Your task to perform on an android device: turn on translation in the chrome app Image 0: 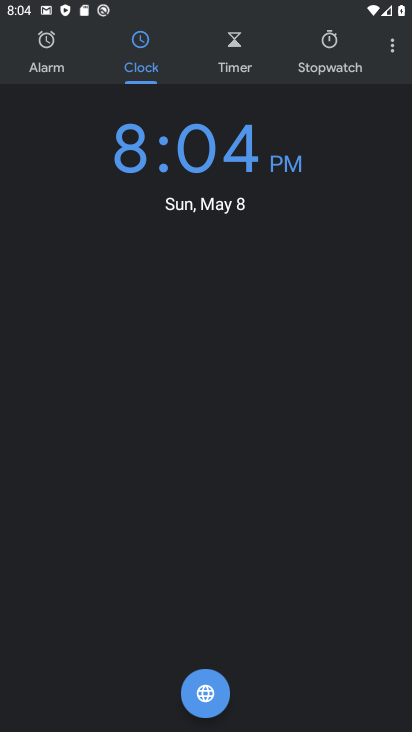
Step 0: press home button
Your task to perform on an android device: turn on translation in the chrome app Image 1: 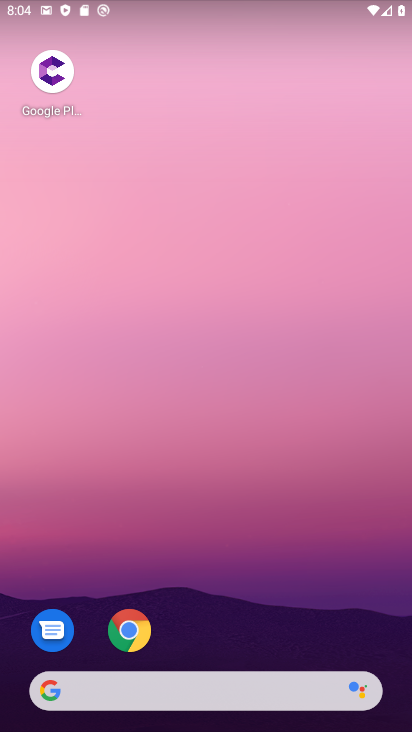
Step 1: drag from (234, 630) to (235, 115)
Your task to perform on an android device: turn on translation in the chrome app Image 2: 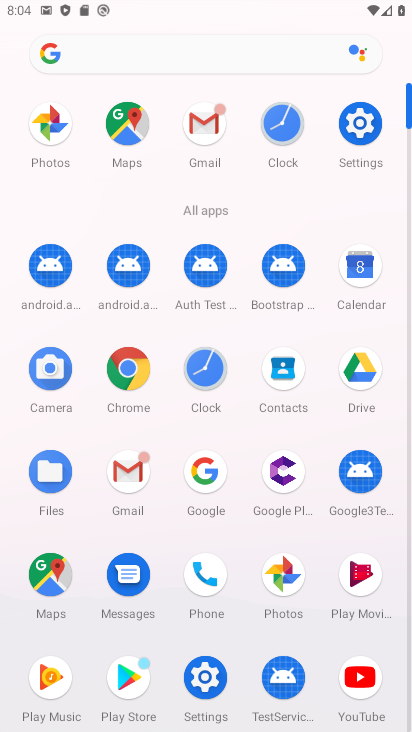
Step 2: click (128, 369)
Your task to perform on an android device: turn on translation in the chrome app Image 3: 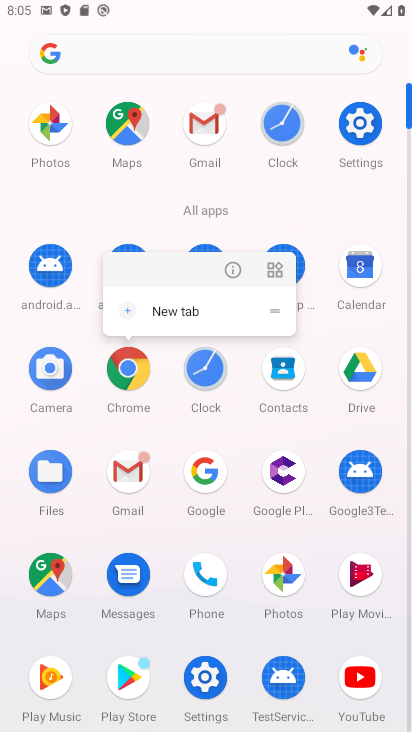
Step 3: click (127, 363)
Your task to perform on an android device: turn on translation in the chrome app Image 4: 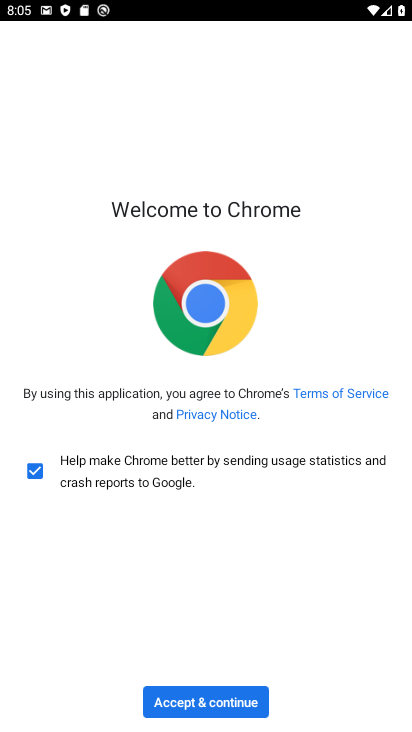
Step 4: click (236, 703)
Your task to perform on an android device: turn on translation in the chrome app Image 5: 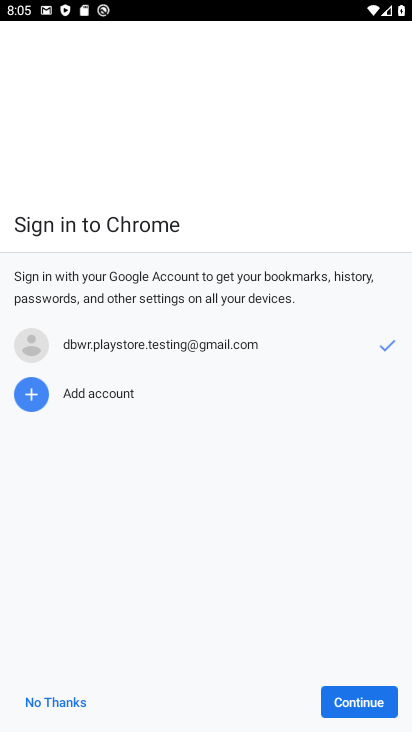
Step 5: click (355, 698)
Your task to perform on an android device: turn on translation in the chrome app Image 6: 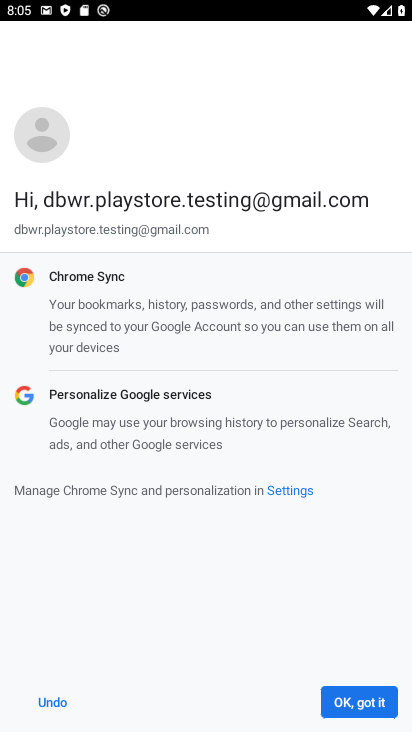
Step 6: click (355, 698)
Your task to perform on an android device: turn on translation in the chrome app Image 7: 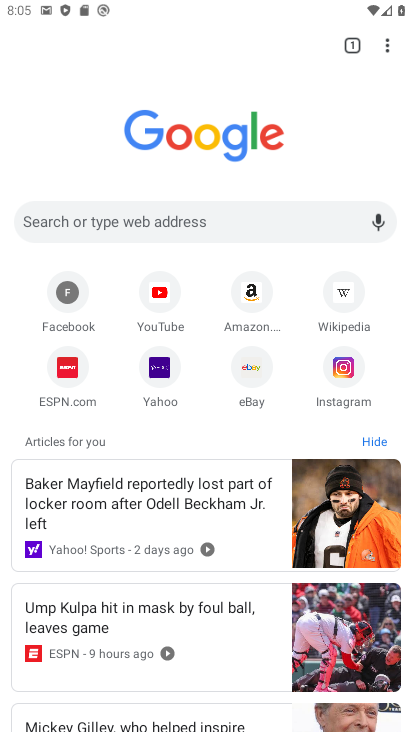
Step 7: click (392, 46)
Your task to perform on an android device: turn on translation in the chrome app Image 8: 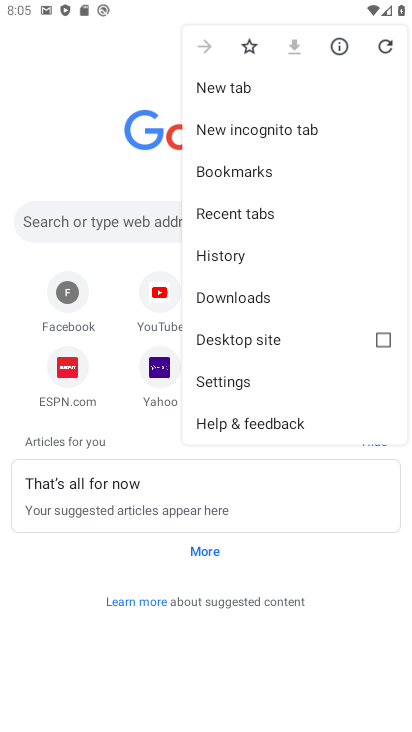
Step 8: click (217, 381)
Your task to perform on an android device: turn on translation in the chrome app Image 9: 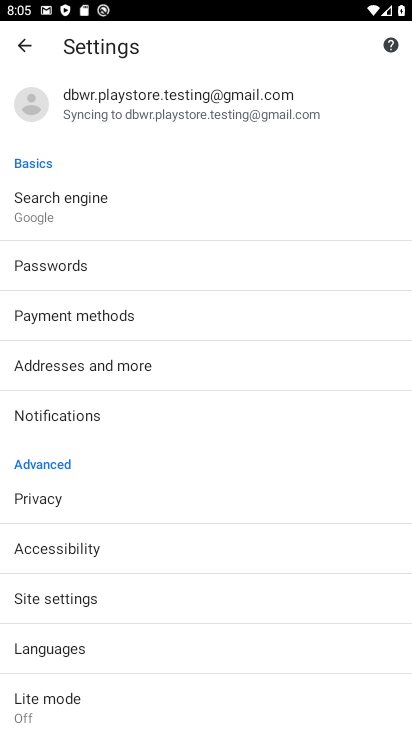
Step 9: click (76, 652)
Your task to perform on an android device: turn on translation in the chrome app Image 10: 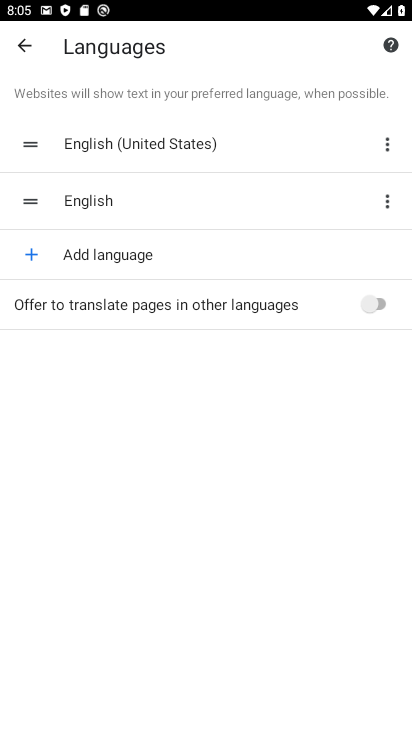
Step 10: click (386, 300)
Your task to perform on an android device: turn on translation in the chrome app Image 11: 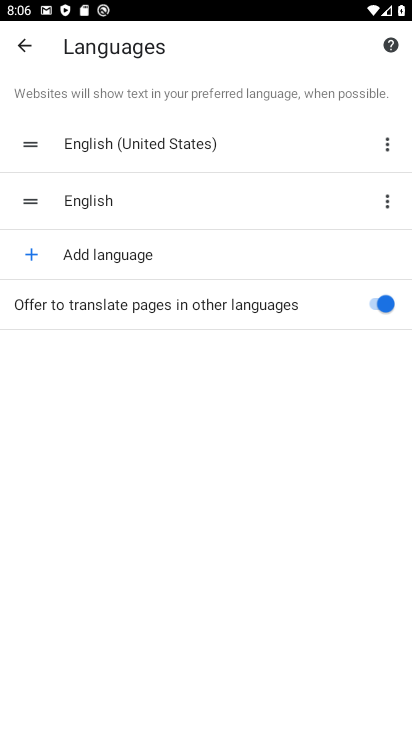
Step 11: task complete